Your task to perform on an android device: What's the weather? Image 0: 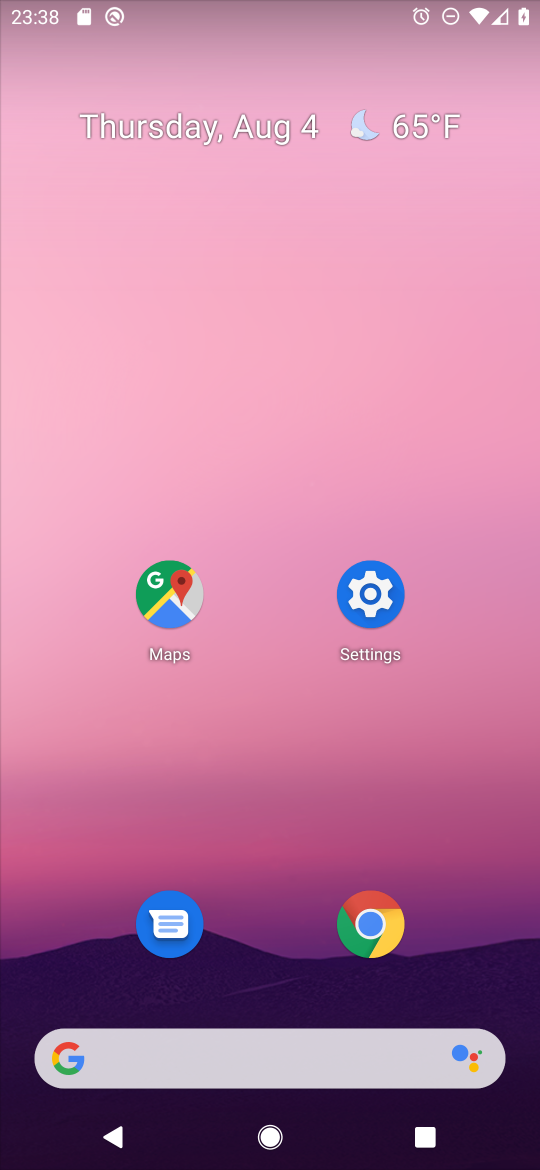
Step 0: click (168, 1059)
Your task to perform on an android device: What's the weather? Image 1: 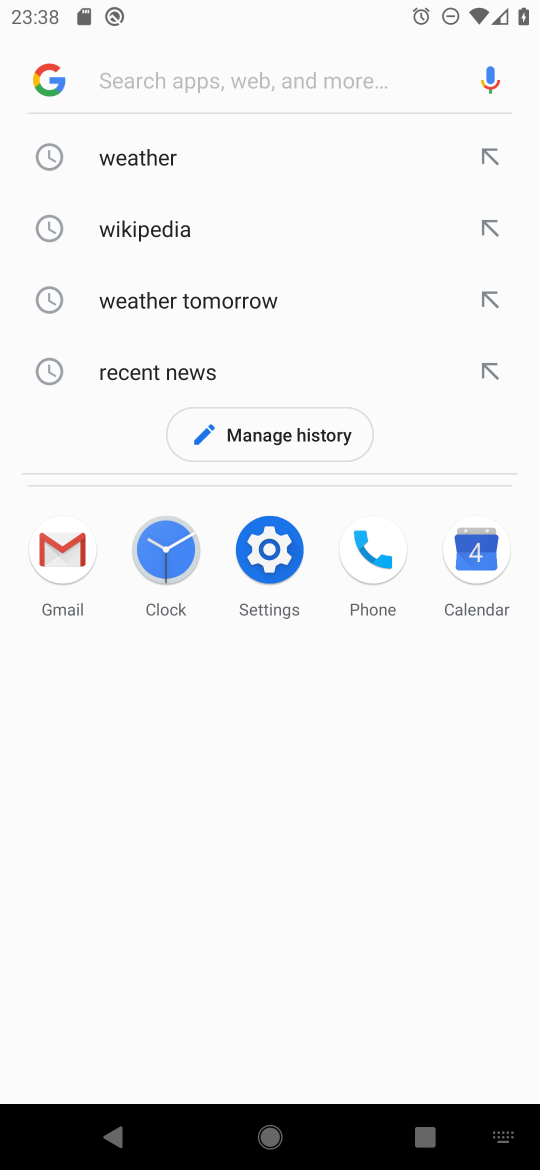
Step 1: click (152, 150)
Your task to perform on an android device: What's the weather? Image 2: 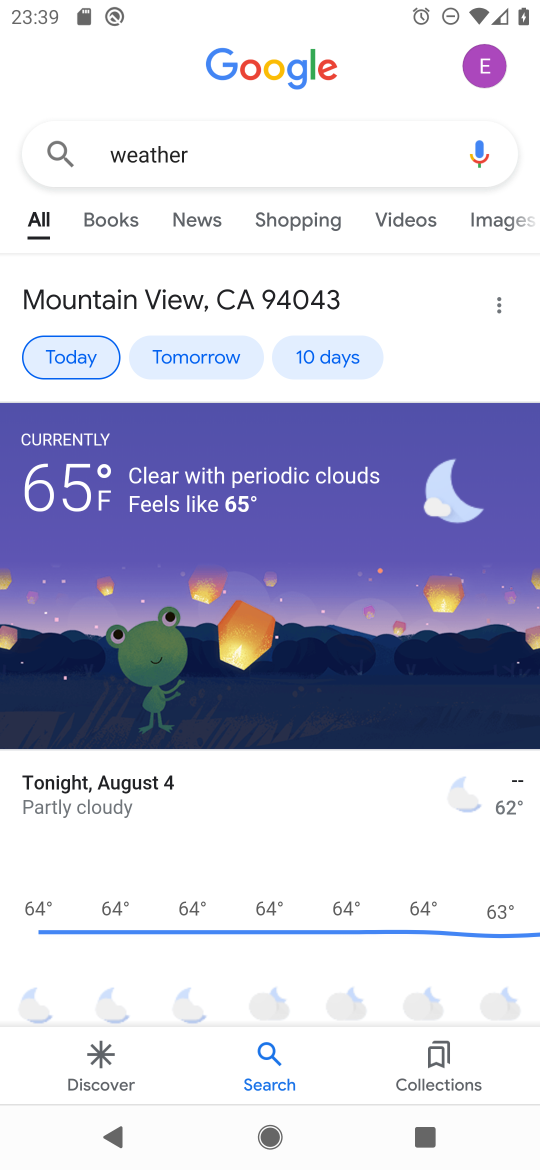
Step 2: task complete